Your task to perform on an android device: What's the weather? Image 0: 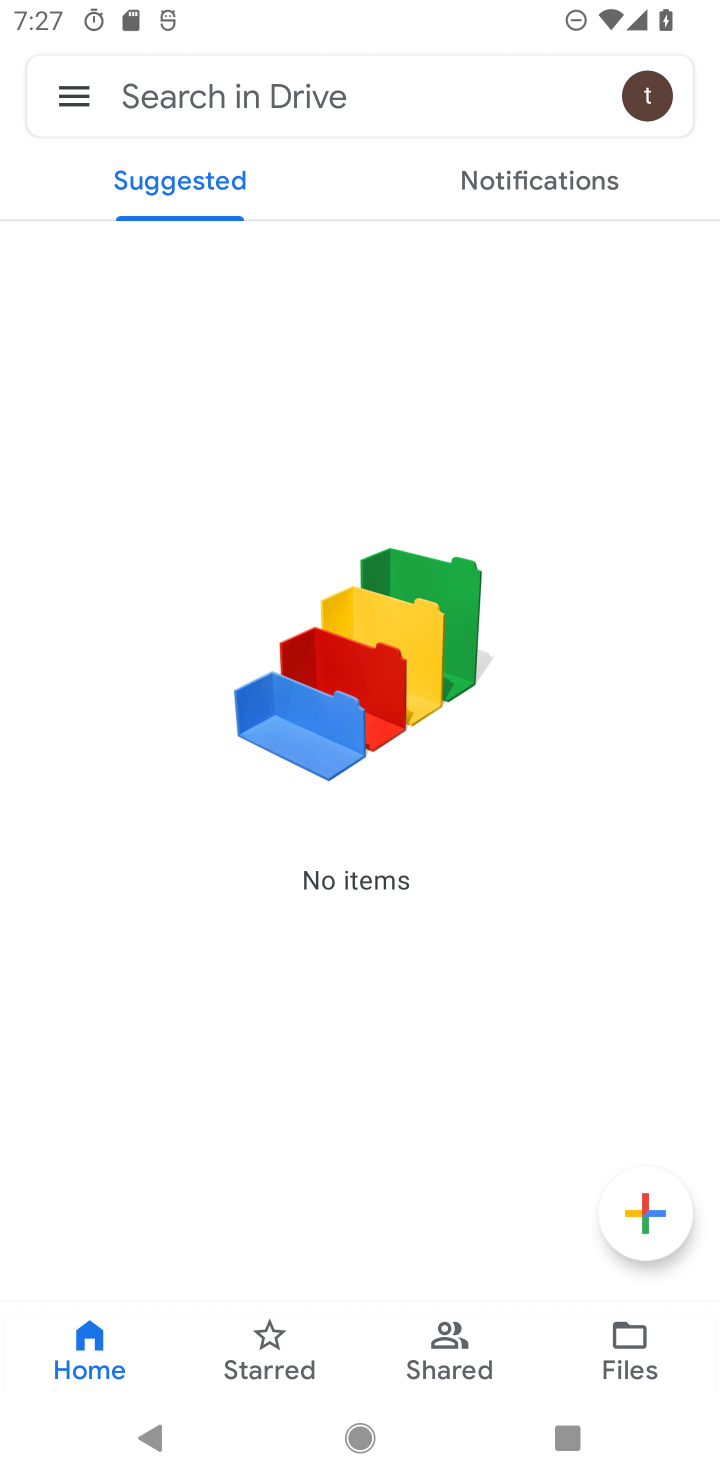
Step 0: press home button
Your task to perform on an android device: What's the weather? Image 1: 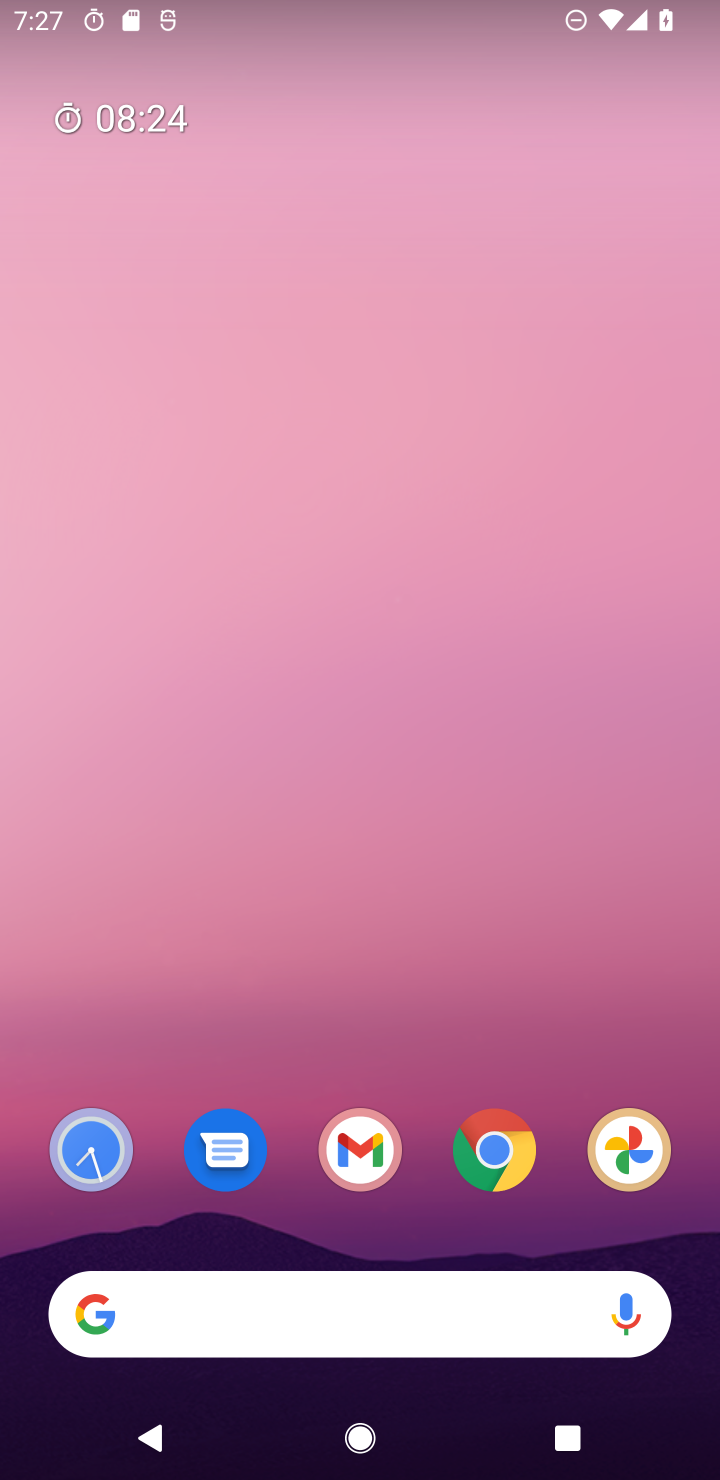
Step 1: drag from (377, 1297) to (149, 619)
Your task to perform on an android device: What's the weather? Image 2: 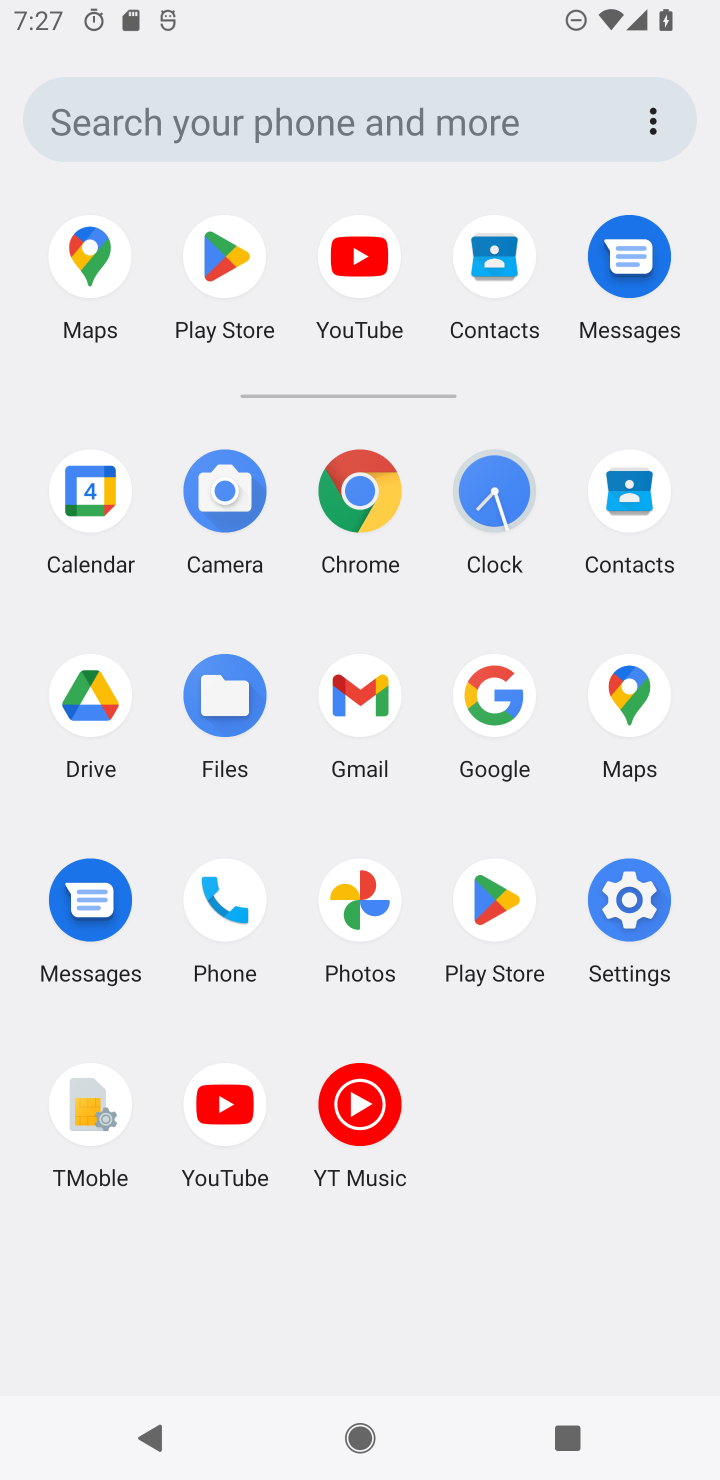
Step 2: click (366, 510)
Your task to perform on an android device: What's the weather? Image 3: 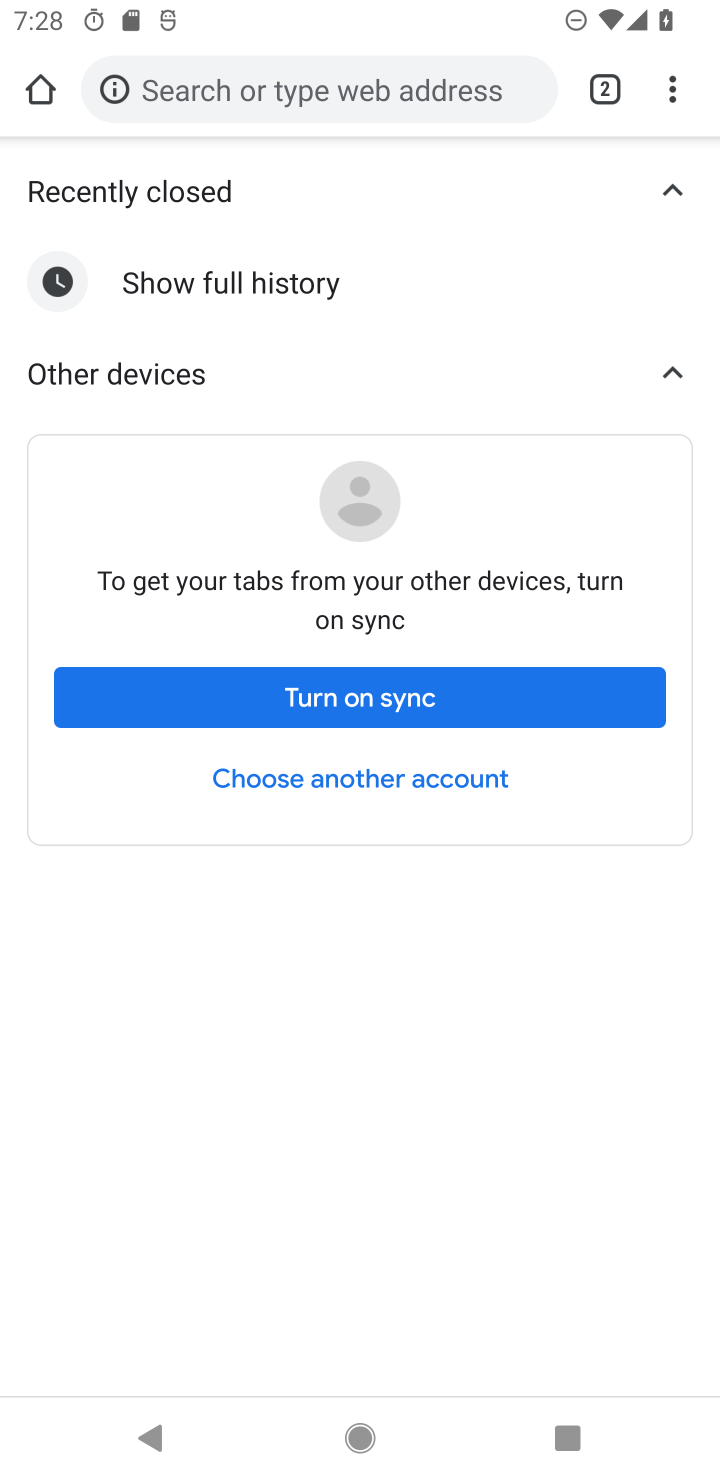
Step 3: click (276, 66)
Your task to perform on an android device: What's the weather? Image 4: 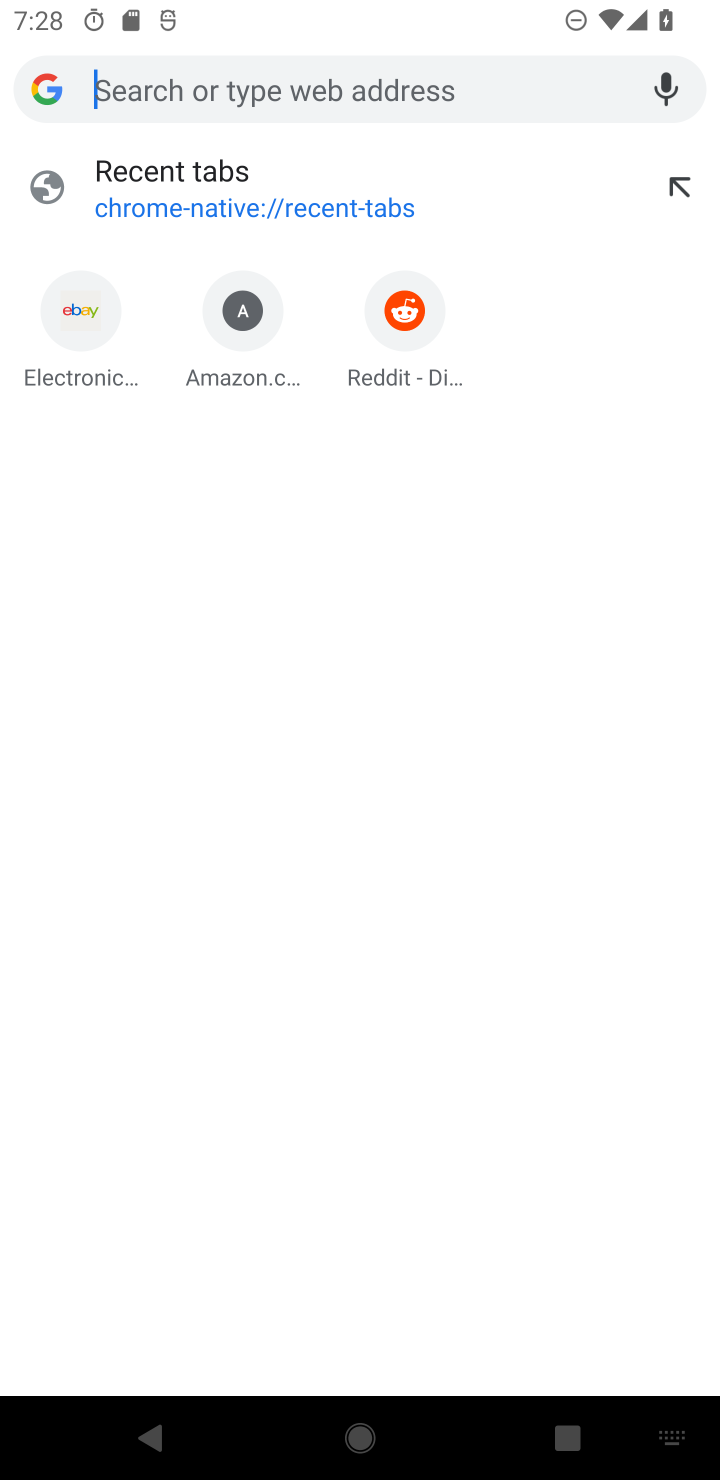
Step 4: type "whats the weather"
Your task to perform on an android device: What's the weather? Image 5: 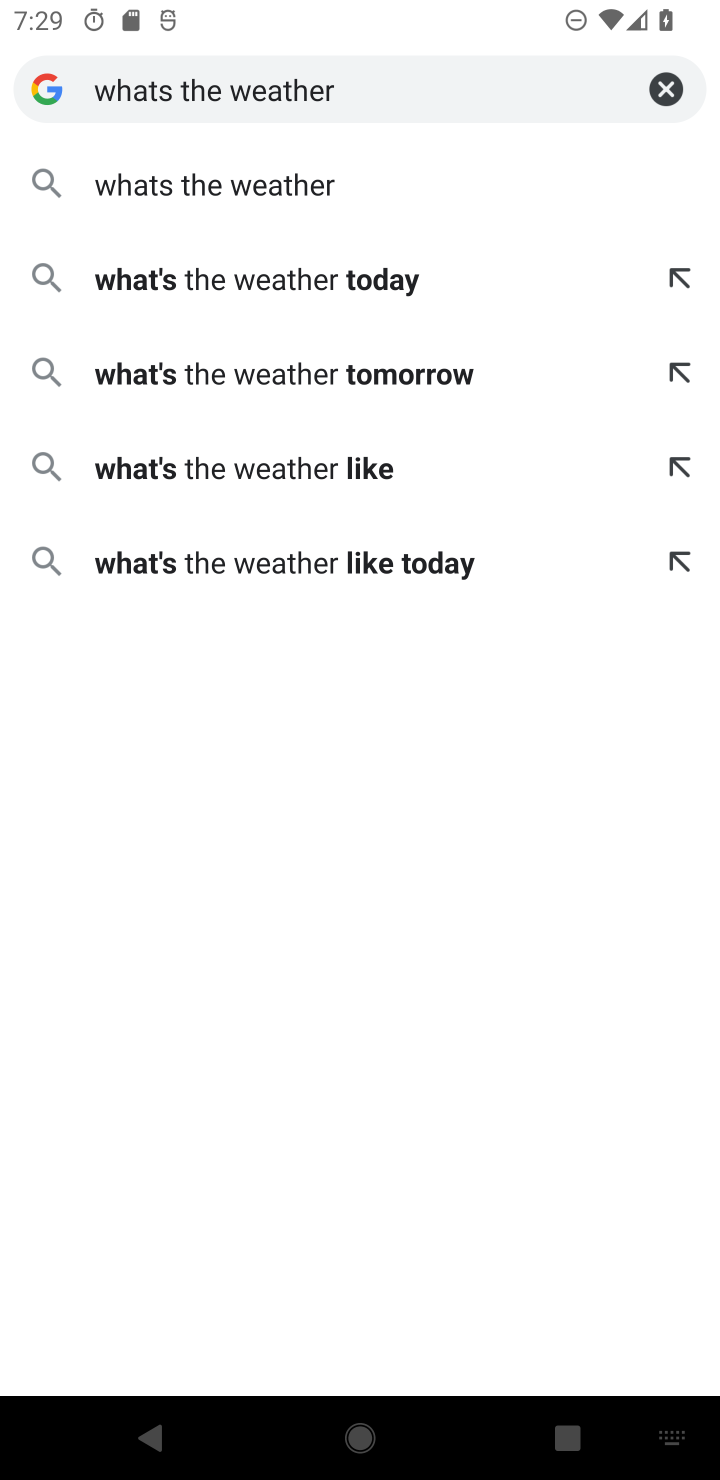
Step 5: click (372, 173)
Your task to perform on an android device: What's the weather? Image 6: 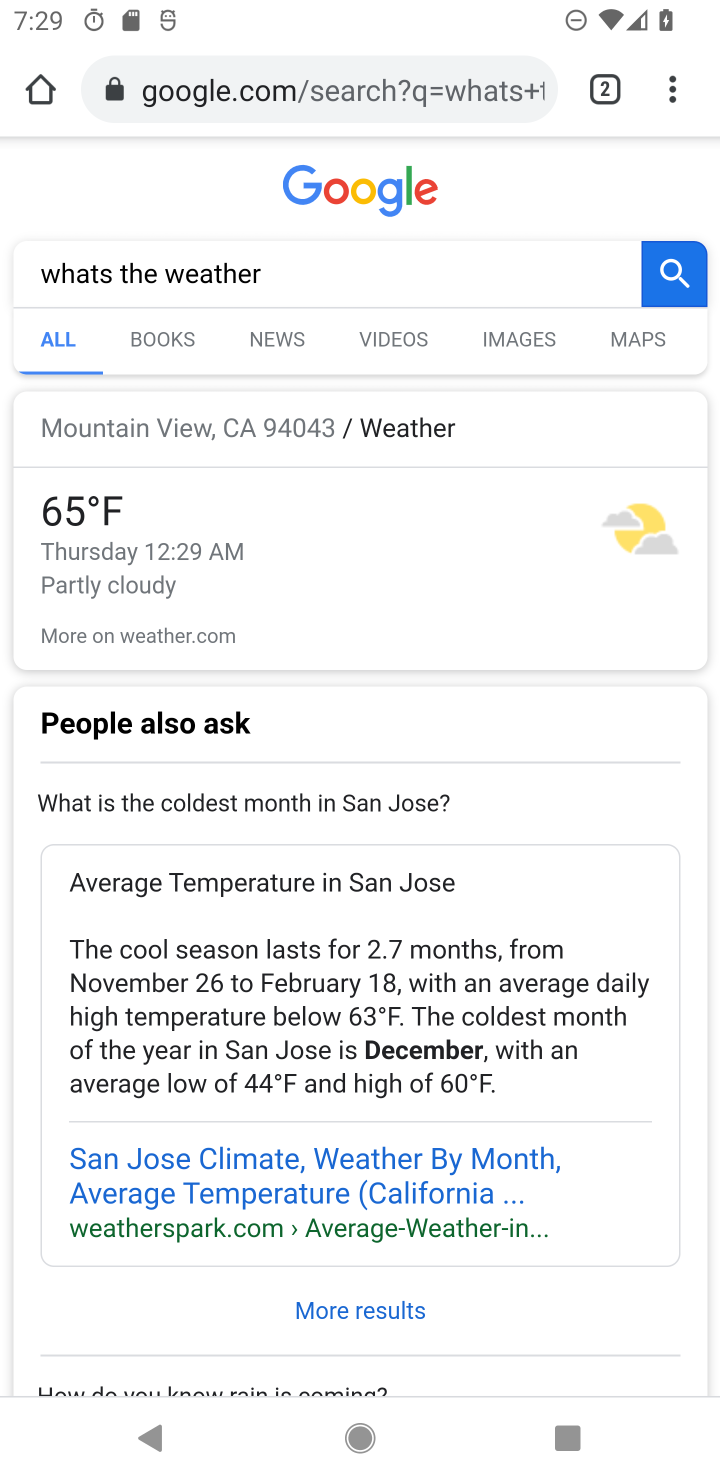
Step 6: task complete